Your task to perform on an android device: Go to network settings Image 0: 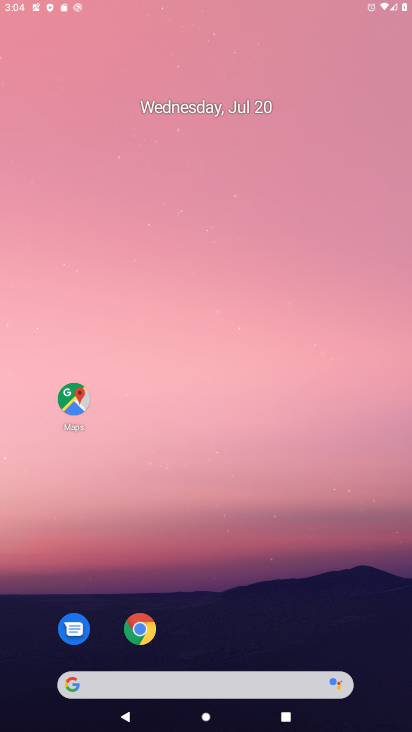
Step 0: press home button
Your task to perform on an android device: Go to network settings Image 1: 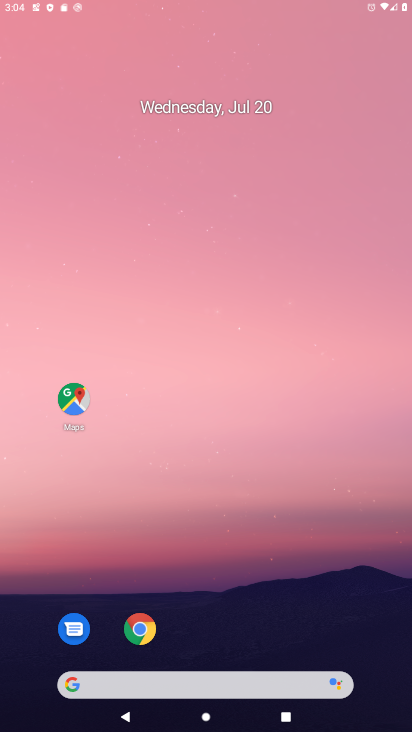
Step 1: click (209, 12)
Your task to perform on an android device: Go to network settings Image 2: 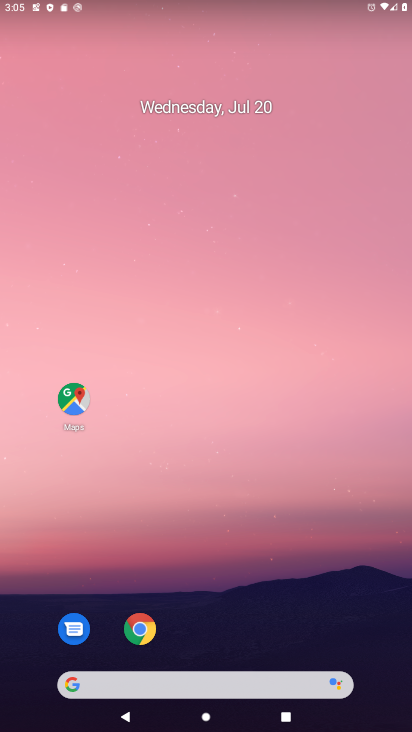
Step 2: drag from (218, 638) to (205, 116)
Your task to perform on an android device: Go to network settings Image 3: 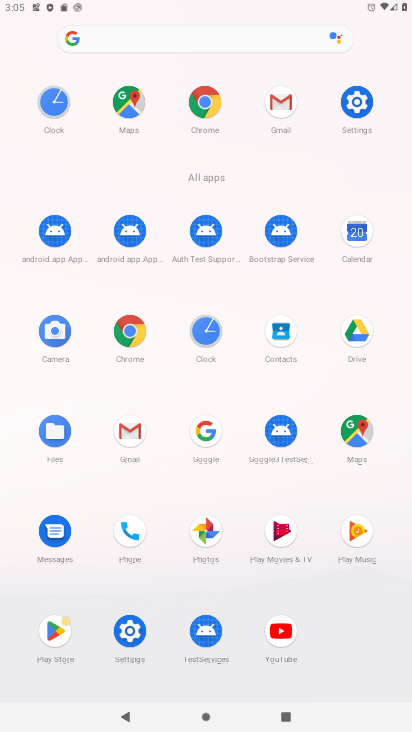
Step 3: click (352, 98)
Your task to perform on an android device: Go to network settings Image 4: 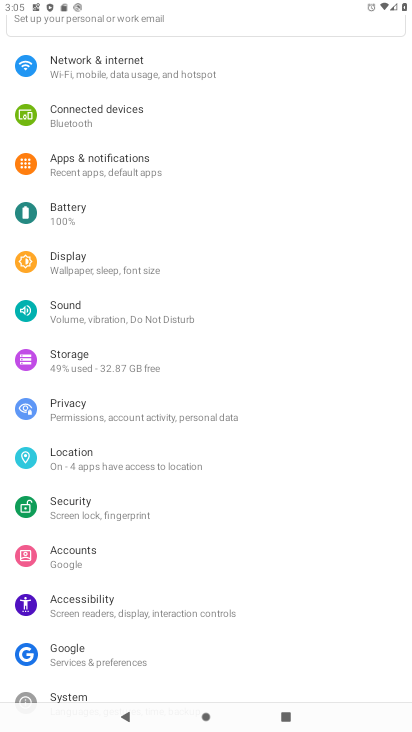
Step 4: click (127, 66)
Your task to perform on an android device: Go to network settings Image 5: 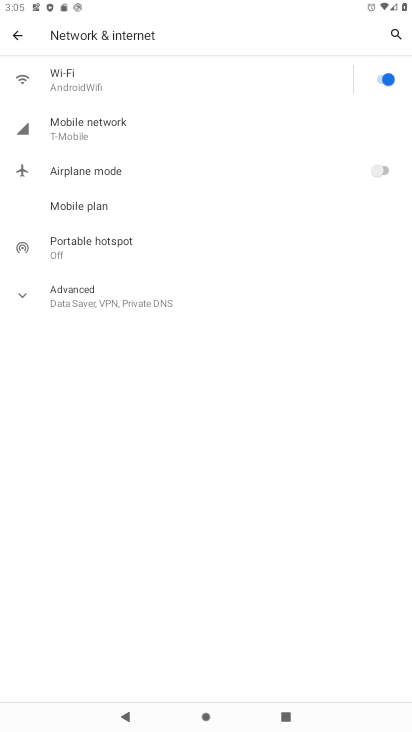
Step 5: click (22, 294)
Your task to perform on an android device: Go to network settings Image 6: 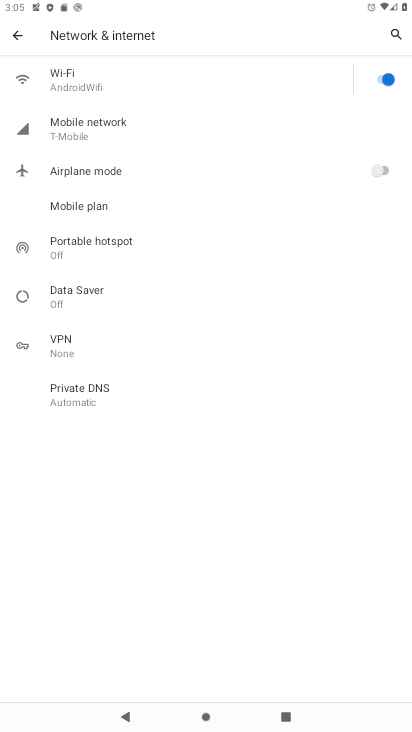
Step 6: task complete